Your task to perform on an android device: turn off translation in the chrome app Image 0: 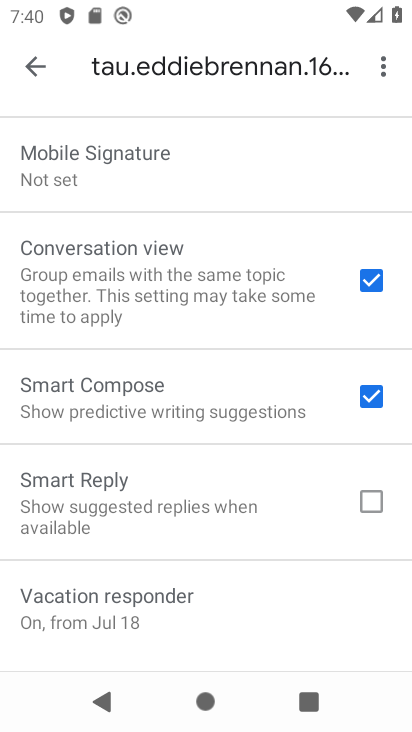
Step 0: press home button
Your task to perform on an android device: turn off translation in the chrome app Image 1: 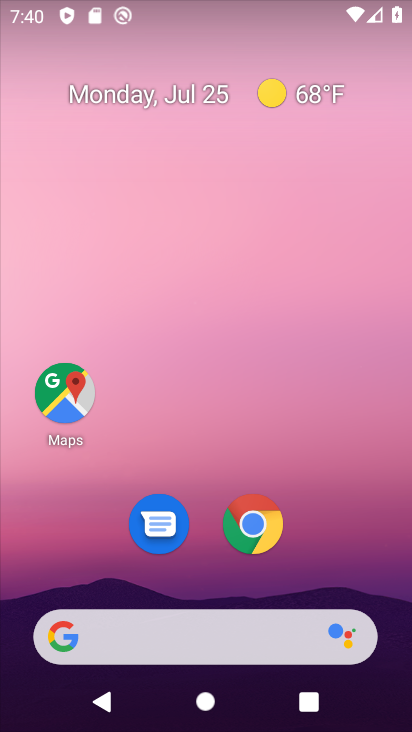
Step 1: click (257, 524)
Your task to perform on an android device: turn off translation in the chrome app Image 2: 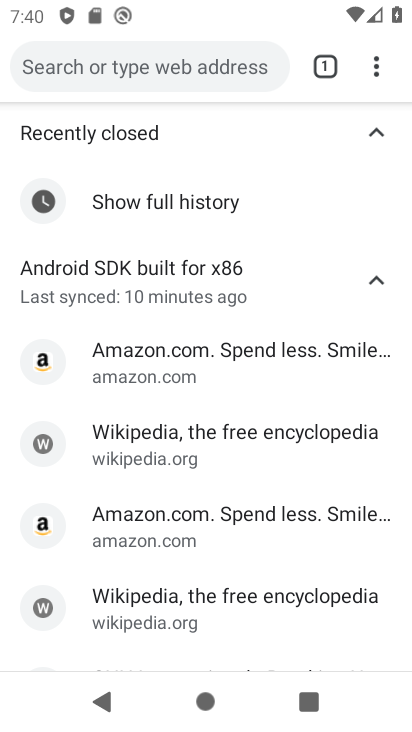
Step 2: click (257, 524)
Your task to perform on an android device: turn off translation in the chrome app Image 3: 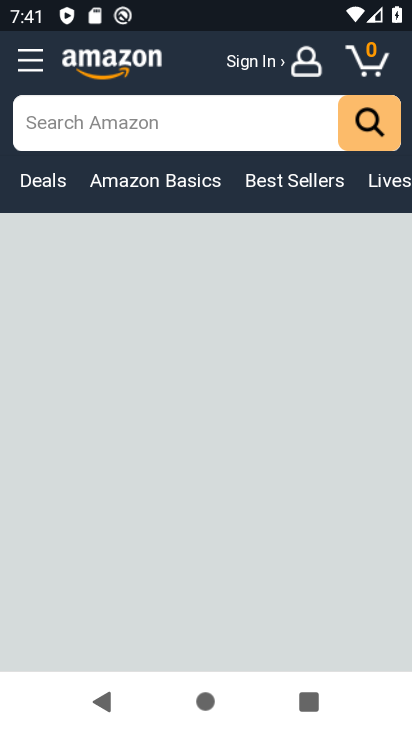
Step 3: press back button
Your task to perform on an android device: turn off translation in the chrome app Image 4: 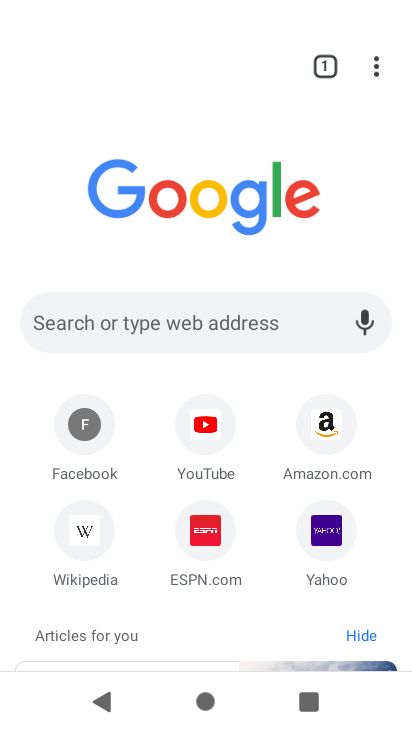
Step 4: click (371, 66)
Your task to perform on an android device: turn off translation in the chrome app Image 5: 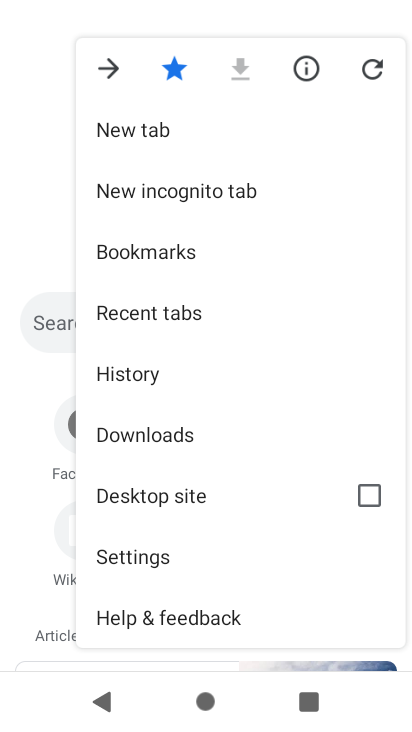
Step 5: click (155, 549)
Your task to perform on an android device: turn off translation in the chrome app Image 6: 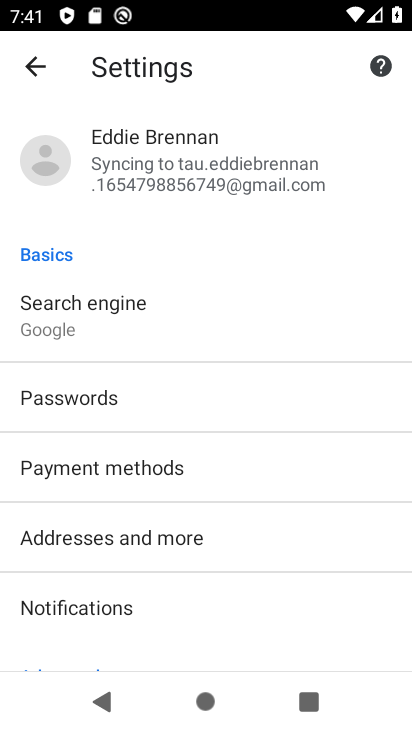
Step 6: drag from (202, 591) to (192, 198)
Your task to perform on an android device: turn off translation in the chrome app Image 7: 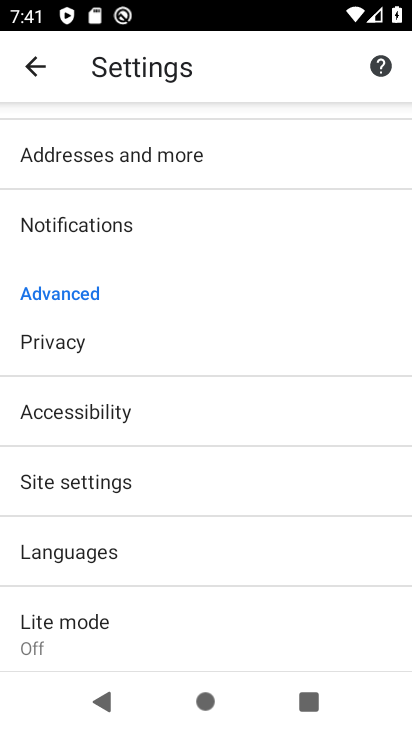
Step 7: click (208, 557)
Your task to perform on an android device: turn off translation in the chrome app Image 8: 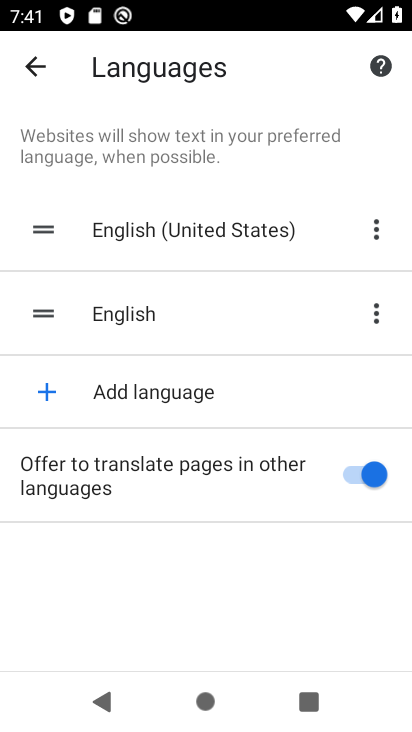
Step 8: click (360, 470)
Your task to perform on an android device: turn off translation in the chrome app Image 9: 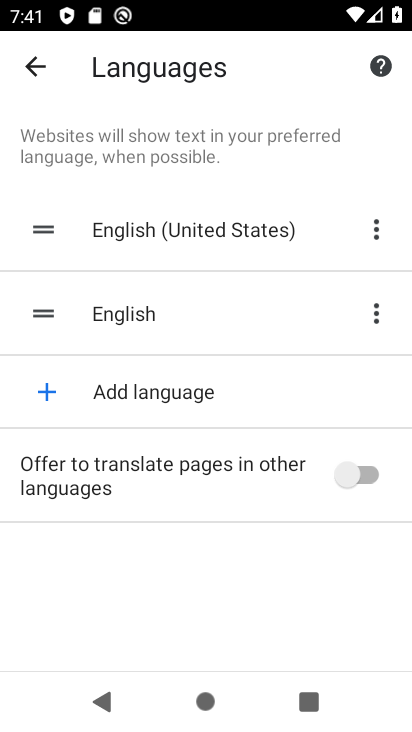
Step 9: task complete